Your task to perform on an android device: Open my contact list Image 0: 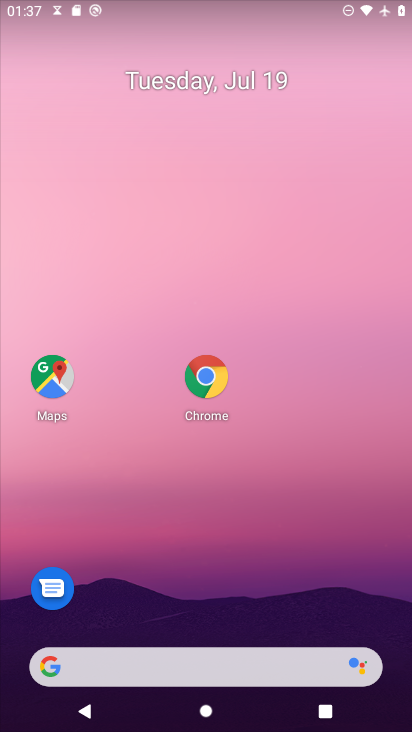
Step 0: press home button
Your task to perform on an android device: Open my contact list Image 1: 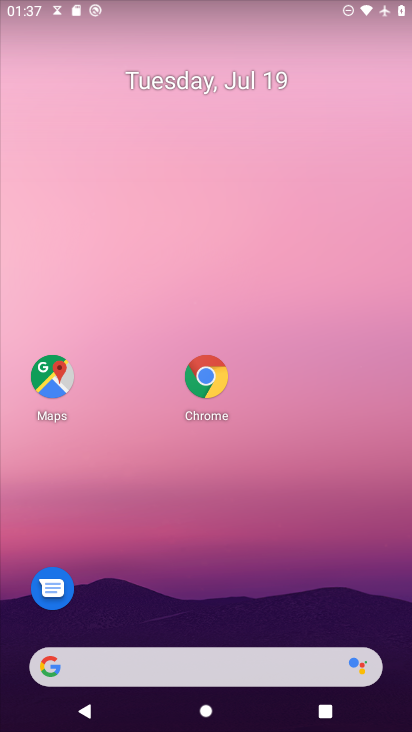
Step 1: drag from (250, 622) to (298, 3)
Your task to perform on an android device: Open my contact list Image 2: 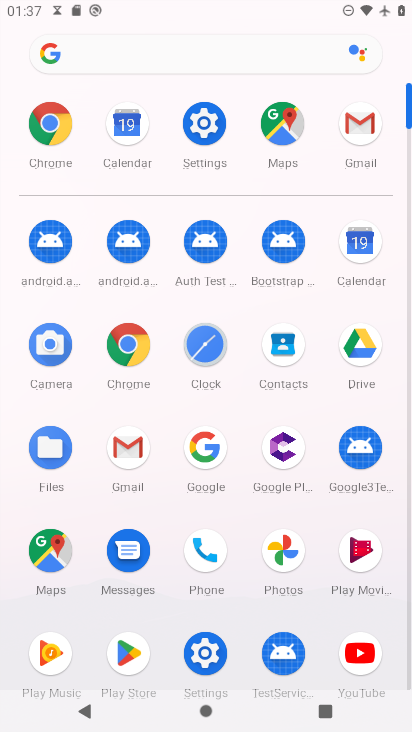
Step 2: click (278, 344)
Your task to perform on an android device: Open my contact list Image 3: 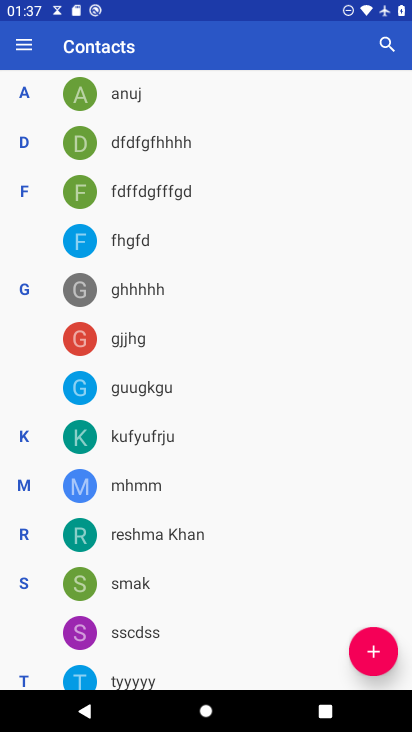
Step 3: press home button
Your task to perform on an android device: Open my contact list Image 4: 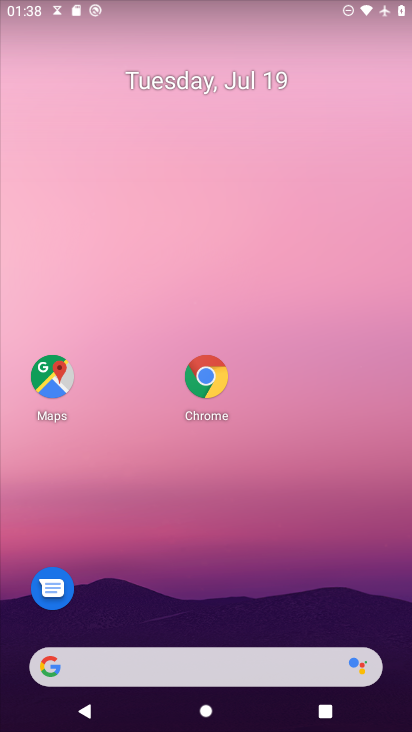
Step 4: press home button
Your task to perform on an android device: Open my contact list Image 5: 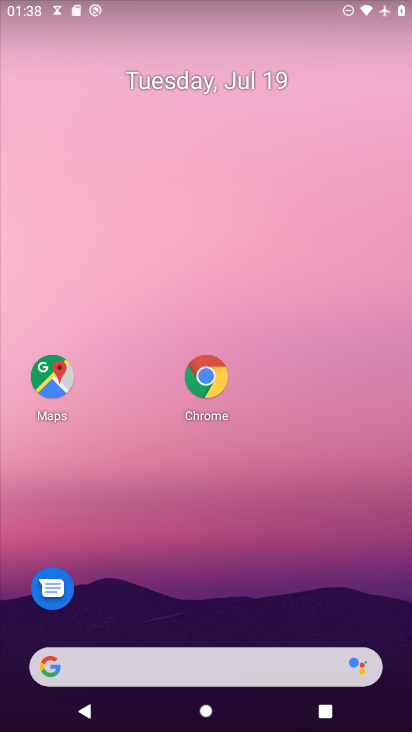
Step 5: drag from (237, 635) to (264, 63)
Your task to perform on an android device: Open my contact list Image 6: 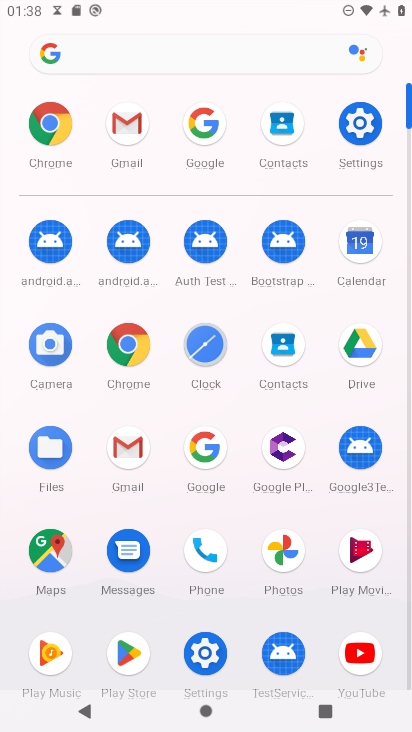
Step 6: click (283, 355)
Your task to perform on an android device: Open my contact list Image 7: 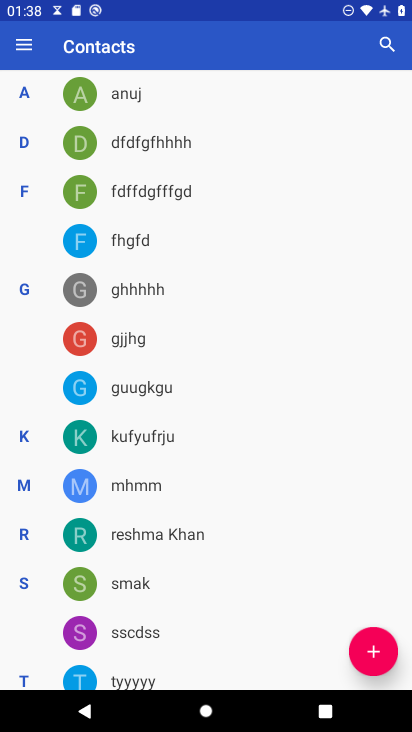
Step 7: task complete